Your task to perform on an android device: turn off priority inbox in the gmail app Image 0: 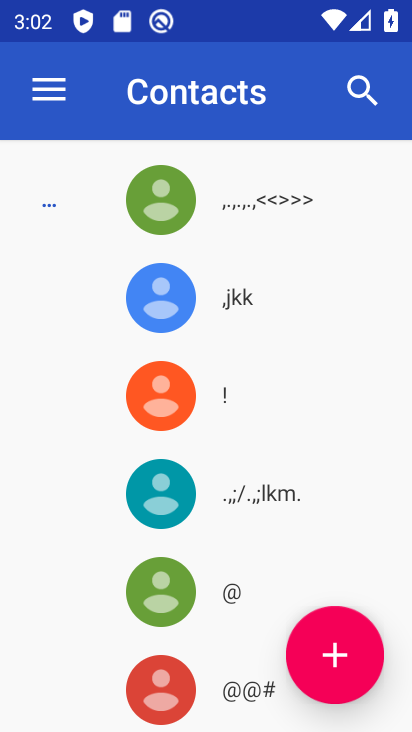
Step 0: press home button
Your task to perform on an android device: turn off priority inbox in the gmail app Image 1: 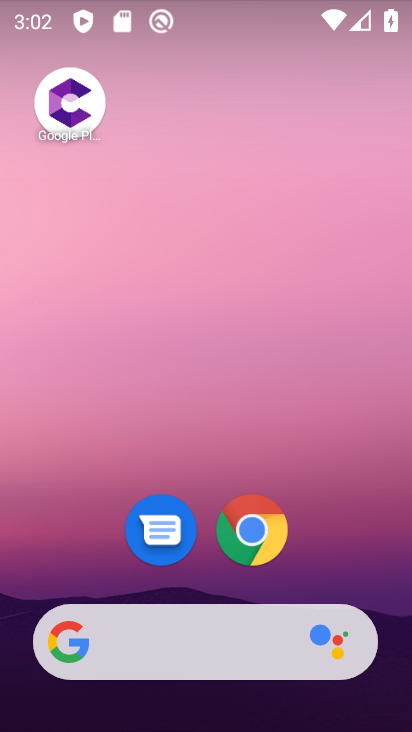
Step 1: drag from (141, 579) to (234, 142)
Your task to perform on an android device: turn off priority inbox in the gmail app Image 2: 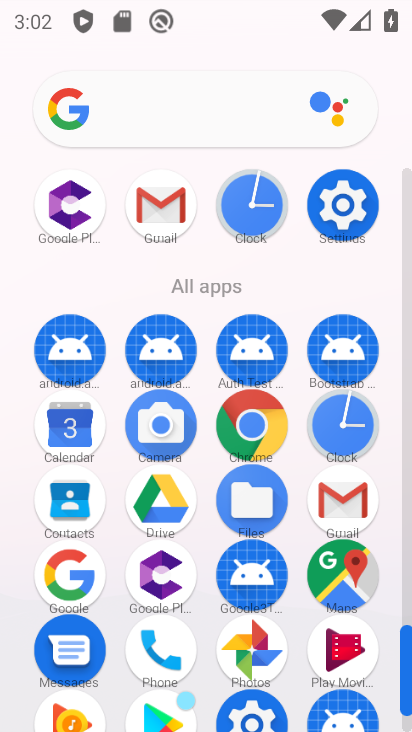
Step 2: drag from (124, 599) to (232, 277)
Your task to perform on an android device: turn off priority inbox in the gmail app Image 3: 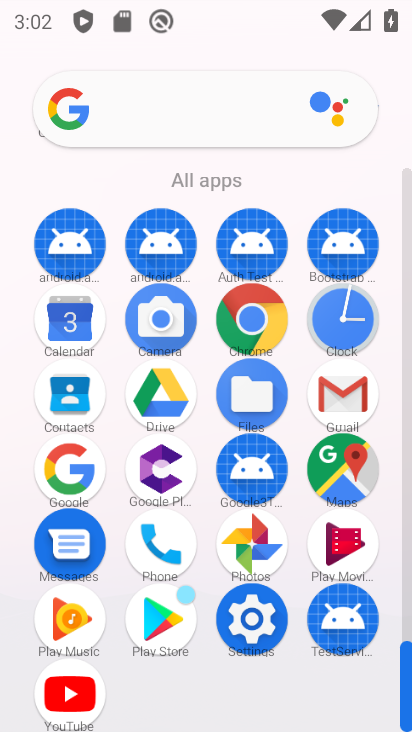
Step 3: click (346, 389)
Your task to perform on an android device: turn off priority inbox in the gmail app Image 4: 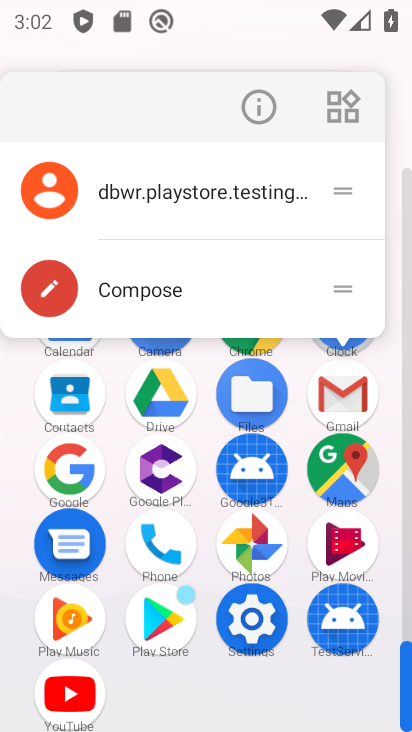
Step 4: click (341, 395)
Your task to perform on an android device: turn off priority inbox in the gmail app Image 5: 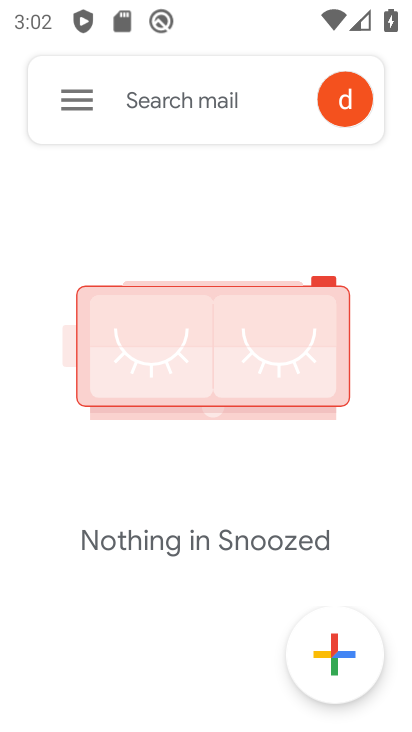
Step 5: click (74, 114)
Your task to perform on an android device: turn off priority inbox in the gmail app Image 6: 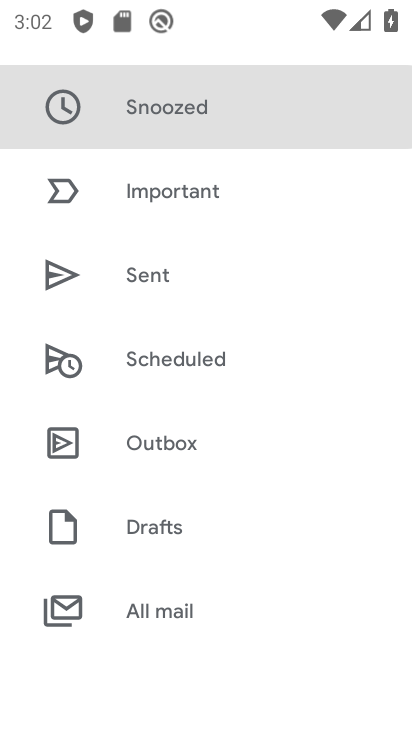
Step 6: drag from (153, 635) to (326, 129)
Your task to perform on an android device: turn off priority inbox in the gmail app Image 7: 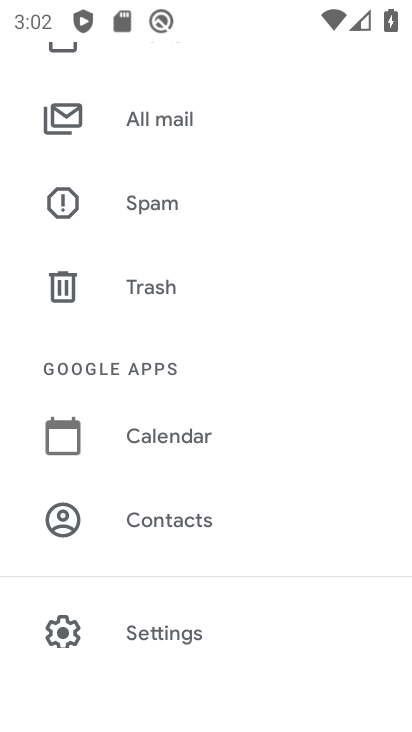
Step 7: click (210, 629)
Your task to perform on an android device: turn off priority inbox in the gmail app Image 8: 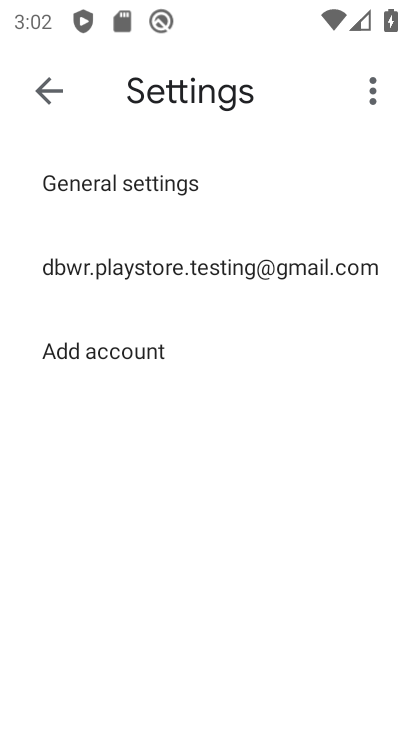
Step 8: click (241, 286)
Your task to perform on an android device: turn off priority inbox in the gmail app Image 9: 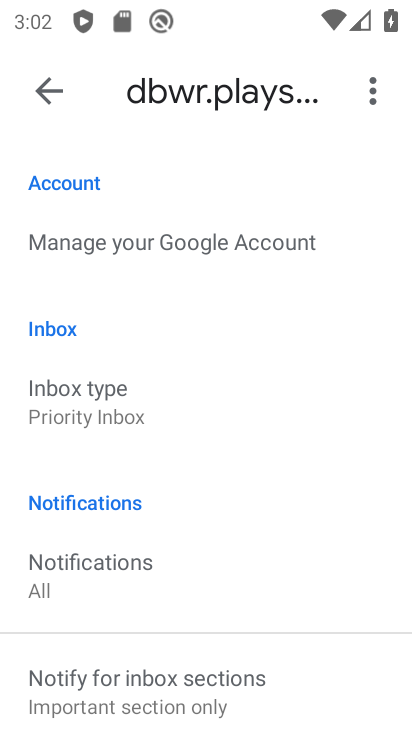
Step 9: drag from (221, 441) to (282, 168)
Your task to perform on an android device: turn off priority inbox in the gmail app Image 10: 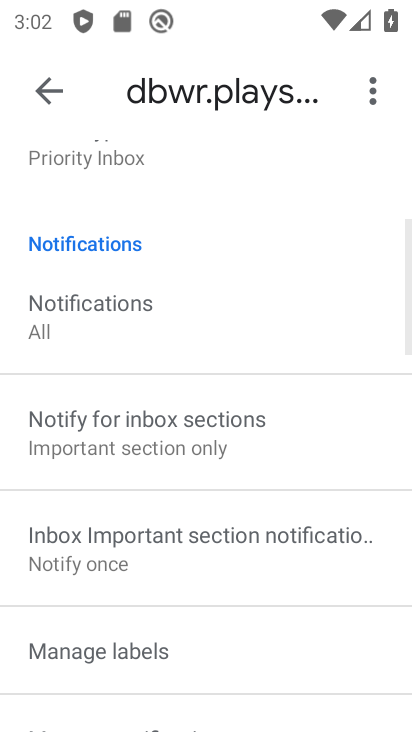
Step 10: drag from (182, 319) to (165, 520)
Your task to perform on an android device: turn off priority inbox in the gmail app Image 11: 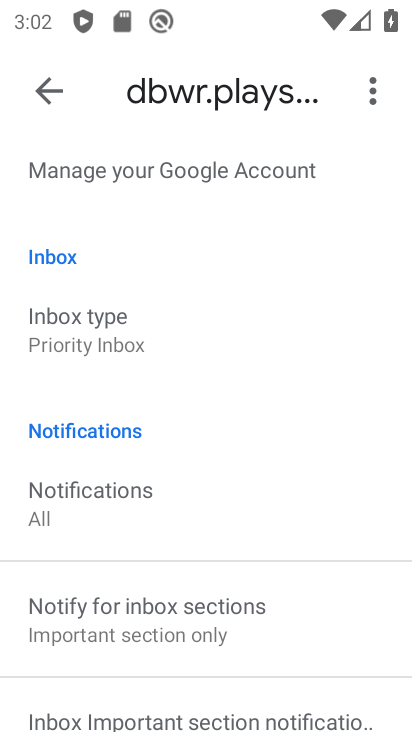
Step 11: click (150, 363)
Your task to perform on an android device: turn off priority inbox in the gmail app Image 12: 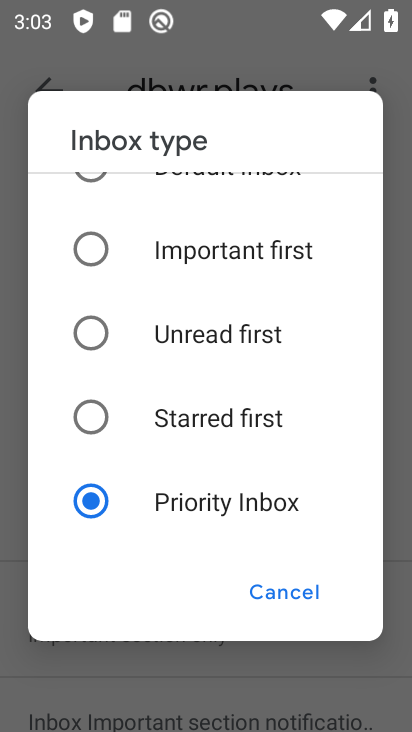
Step 12: drag from (229, 278) to (213, 601)
Your task to perform on an android device: turn off priority inbox in the gmail app Image 13: 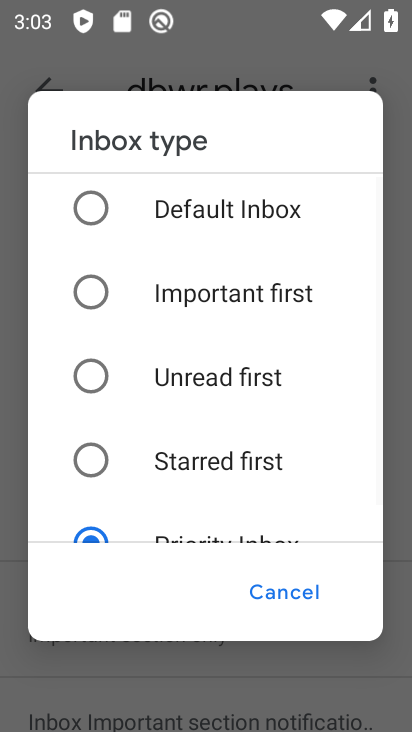
Step 13: click (234, 225)
Your task to perform on an android device: turn off priority inbox in the gmail app Image 14: 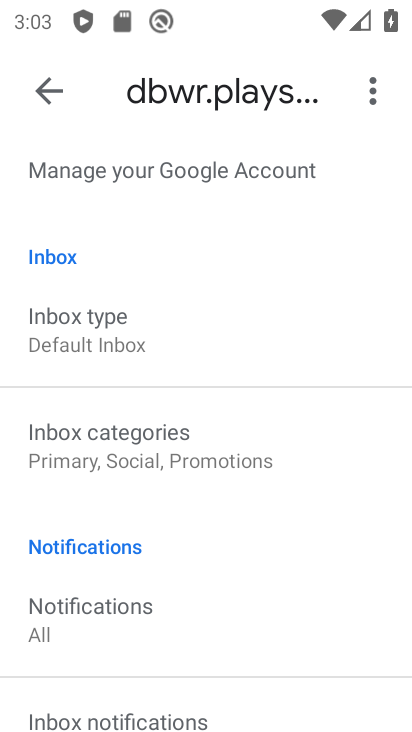
Step 14: task complete